Your task to perform on an android device: uninstall "Google Pay: Save, Pay, Manage" Image 0: 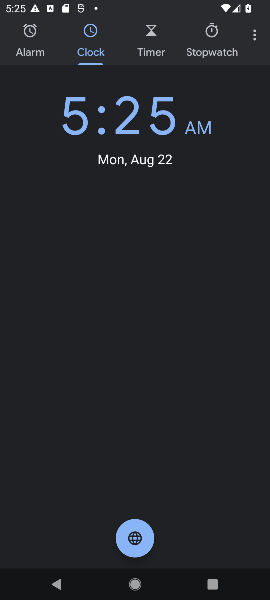
Step 0: press home button
Your task to perform on an android device: uninstall "Google Pay: Save, Pay, Manage" Image 1: 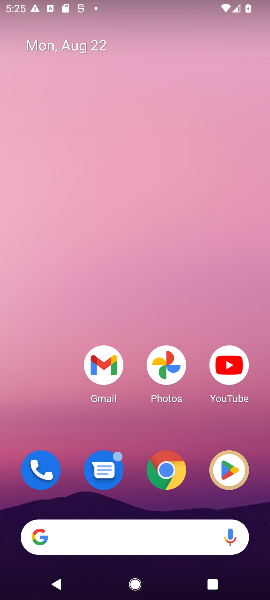
Step 1: drag from (125, 487) to (170, 155)
Your task to perform on an android device: uninstall "Google Pay: Save, Pay, Manage" Image 2: 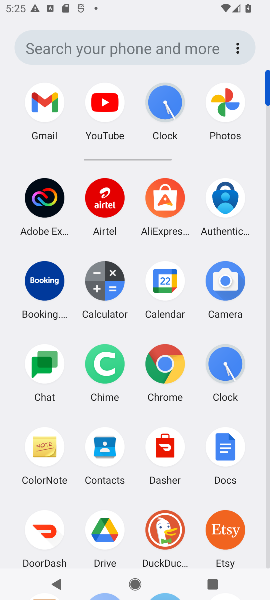
Step 2: drag from (127, 445) to (150, 155)
Your task to perform on an android device: uninstall "Google Pay: Save, Pay, Manage" Image 3: 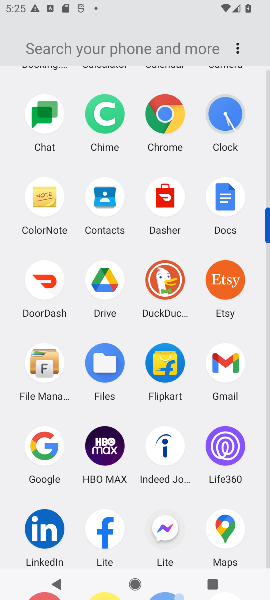
Step 3: drag from (39, 466) to (124, 80)
Your task to perform on an android device: uninstall "Google Pay: Save, Pay, Manage" Image 4: 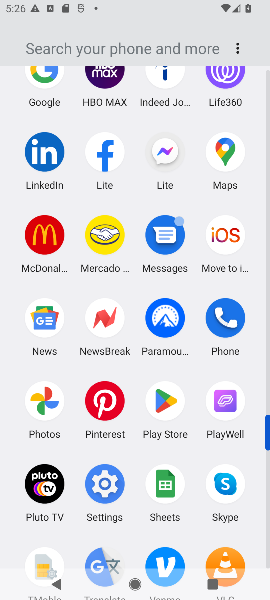
Step 4: click (162, 395)
Your task to perform on an android device: uninstall "Google Pay: Save, Pay, Manage" Image 5: 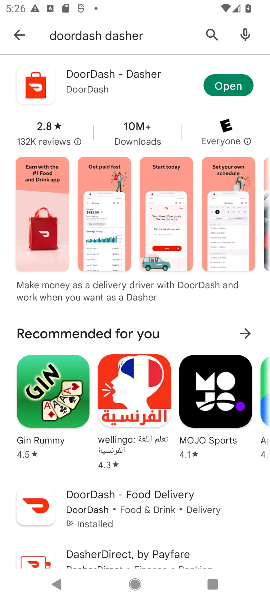
Step 5: click (23, 34)
Your task to perform on an android device: uninstall "Google Pay: Save, Pay, Manage" Image 6: 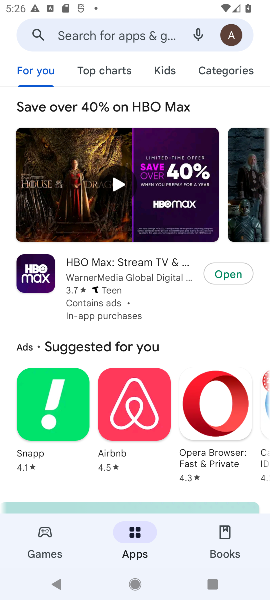
Step 6: click (92, 31)
Your task to perform on an android device: uninstall "Google Pay: Save, Pay, Manage" Image 7: 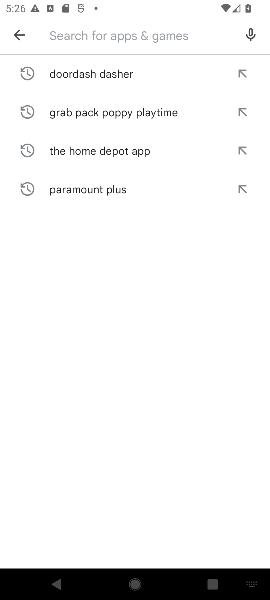
Step 7: type "Google Pay: Save, Pay, Manage "
Your task to perform on an android device: uninstall "Google Pay: Save, Pay, Manage" Image 8: 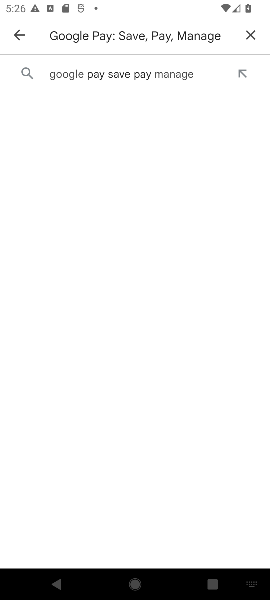
Step 8: click (95, 65)
Your task to perform on an android device: uninstall "Google Pay: Save, Pay, Manage" Image 9: 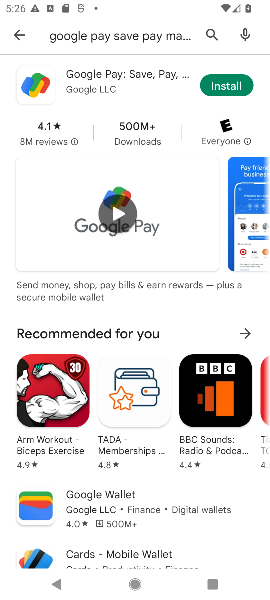
Step 9: click (96, 77)
Your task to perform on an android device: uninstall "Google Pay: Save, Pay, Manage" Image 10: 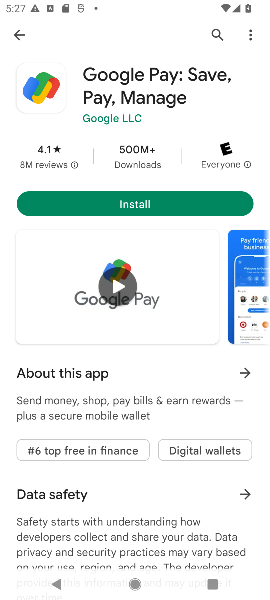
Step 10: task complete